Your task to perform on an android device: turn on the 24-hour format for clock Image 0: 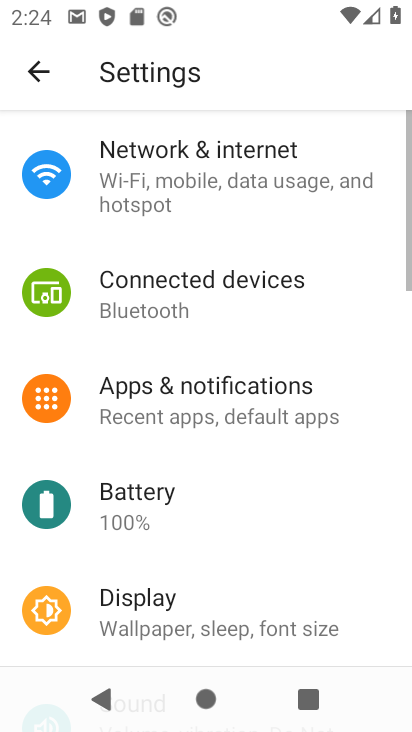
Step 0: drag from (130, 541) to (169, 194)
Your task to perform on an android device: turn on the 24-hour format for clock Image 1: 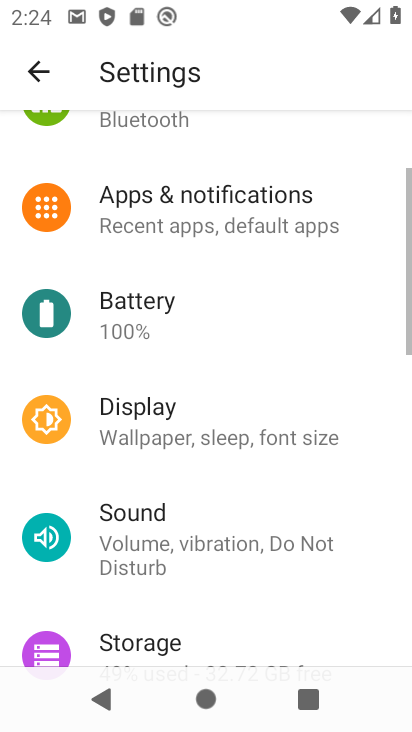
Step 1: drag from (215, 527) to (248, 235)
Your task to perform on an android device: turn on the 24-hour format for clock Image 2: 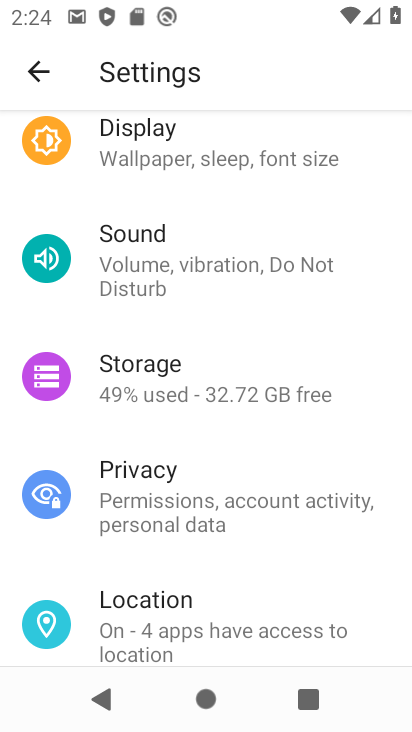
Step 2: drag from (185, 614) to (227, 229)
Your task to perform on an android device: turn on the 24-hour format for clock Image 3: 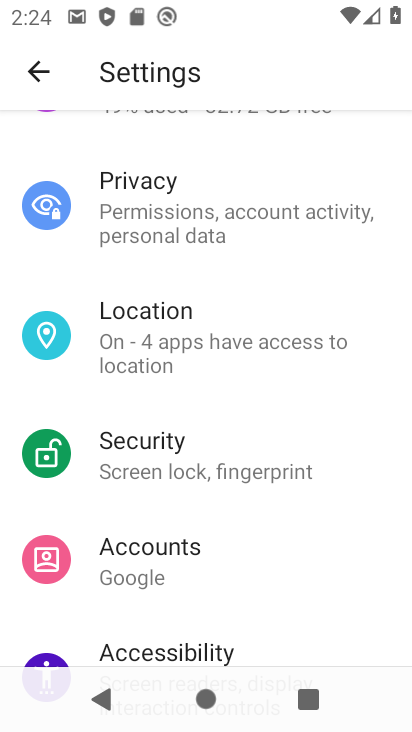
Step 3: drag from (211, 612) to (210, 271)
Your task to perform on an android device: turn on the 24-hour format for clock Image 4: 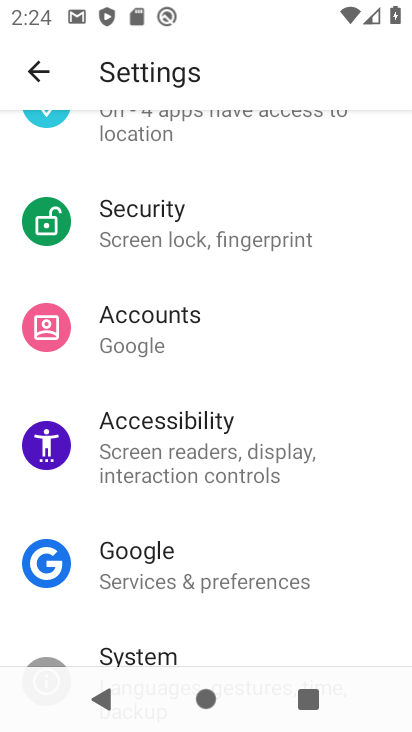
Step 4: drag from (153, 569) to (165, 377)
Your task to perform on an android device: turn on the 24-hour format for clock Image 5: 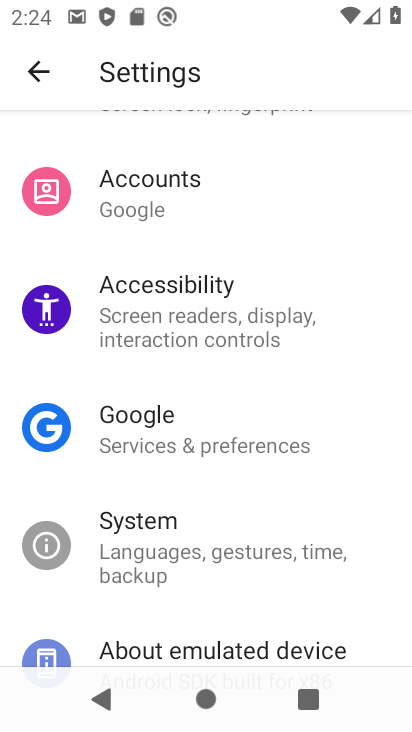
Step 5: click (138, 551)
Your task to perform on an android device: turn on the 24-hour format for clock Image 6: 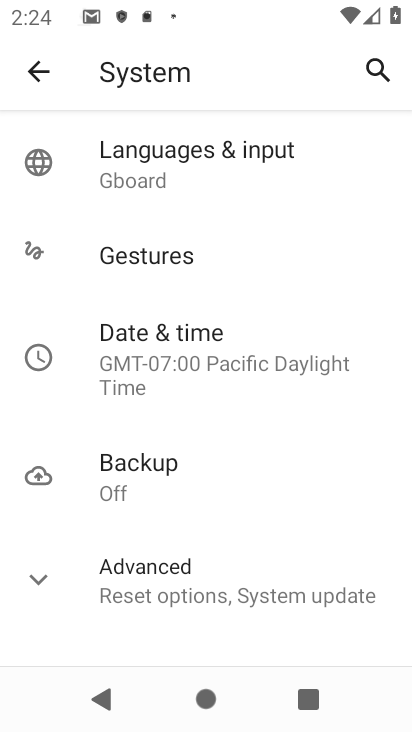
Step 6: click (172, 368)
Your task to perform on an android device: turn on the 24-hour format for clock Image 7: 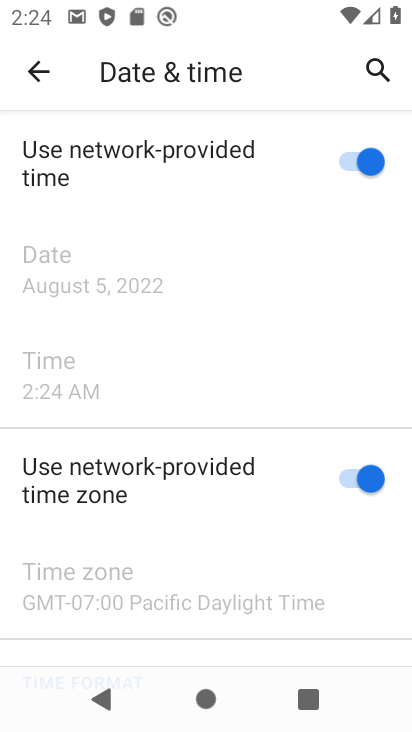
Step 7: drag from (194, 539) to (212, 98)
Your task to perform on an android device: turn on the 24-hour format for clock Image 8: 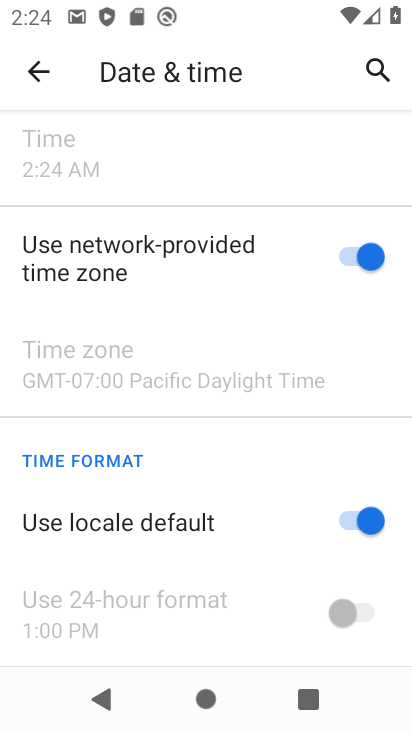
Step 8: drag from (152, 538) to (169, 153)
Your task to perform on an android device: turn on the 24-hour format for clock Image 9: 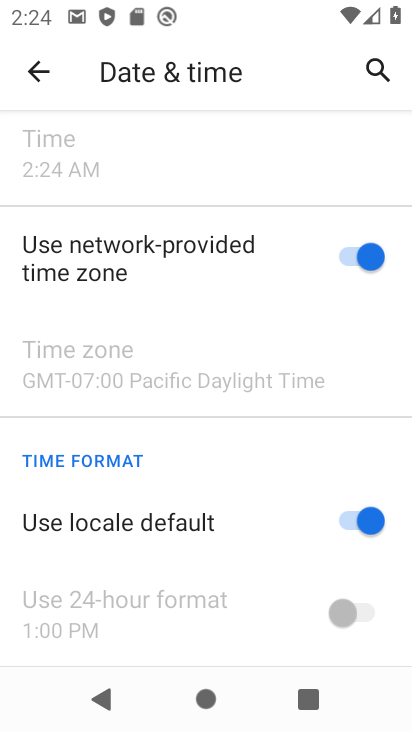
Step 9: click (344, 522)
Your task to perform on an android device: turn on the 24-hour format for clock Image 10: 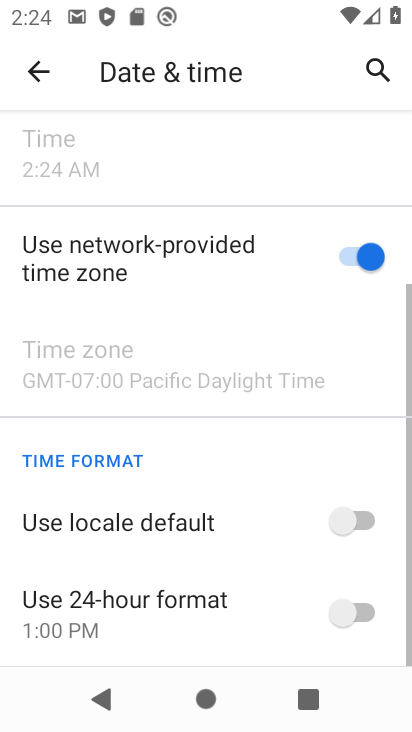
Step 10: click (366, 615)
Your task to perform on an android device: turn on the 24-hour format for clock Image 11: 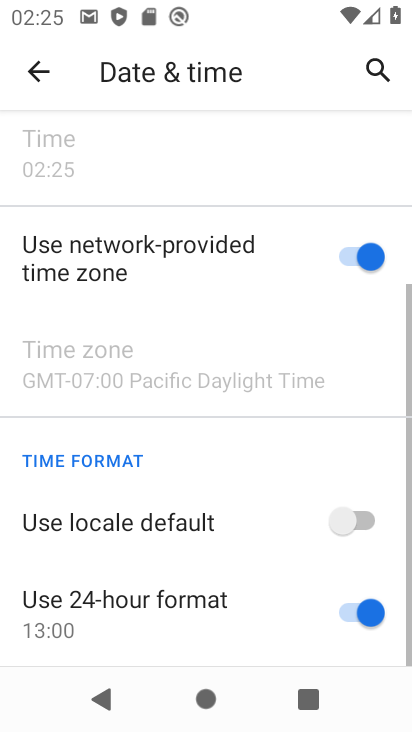
Step 11: task complete